Your task to perform on an android device: Open the phone app and click the voicemail tab. Image 0: 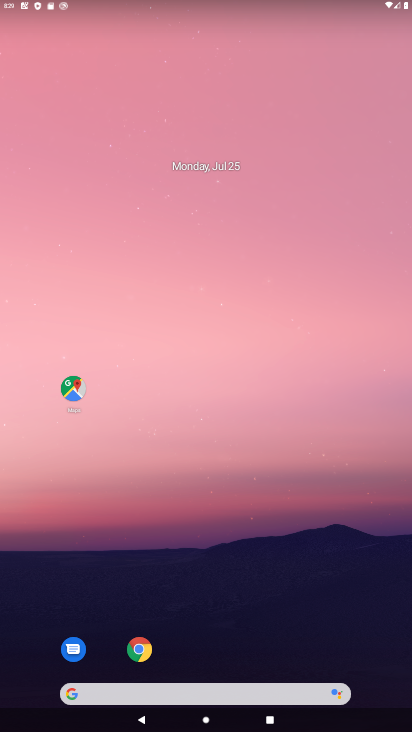
Step 0: drag from (216, 679) to (328, 0)
Your task to perform on an android device: Open the phone app and click the voicemail tab. Image 1: 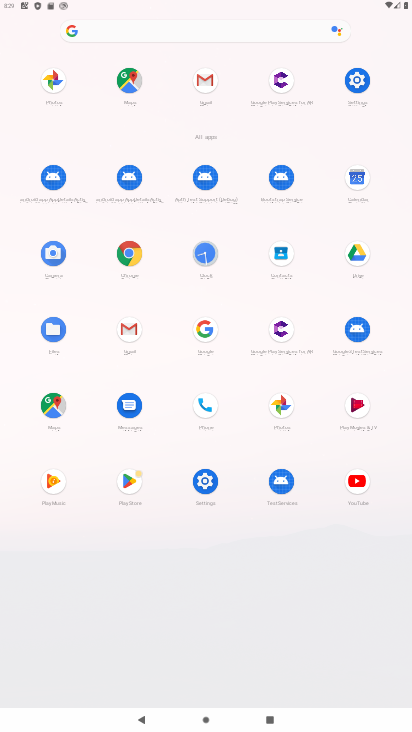
Step 1: click (197, 397)
Your task to perform on an android device: Open the phone app and click the voicemail tab. Image 2: 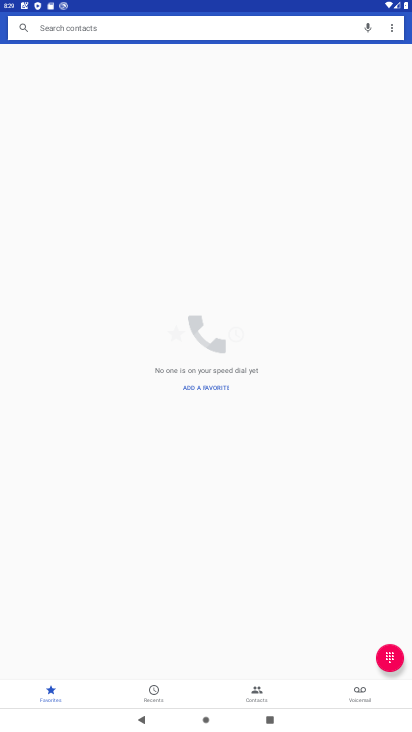
Step 2: click (197, 397)
Your task to perform on an android device: Open the phone app and click the voicemail tab. Image 3: 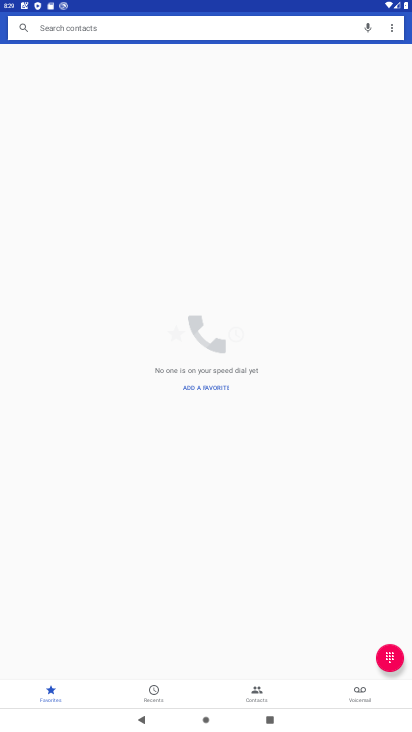
Step 3: click (359, 698)
Your task to perform on an android device: Open the phone app and click the voicemail tab. Image 4: 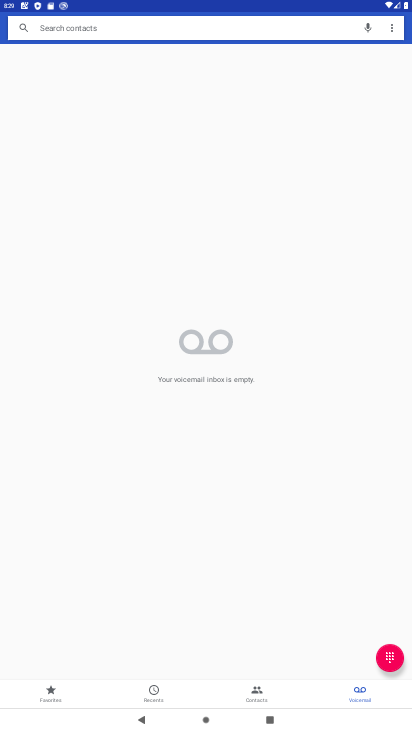
Step 4: task complete